Your task to perform on an android device: check google app version Image 0: 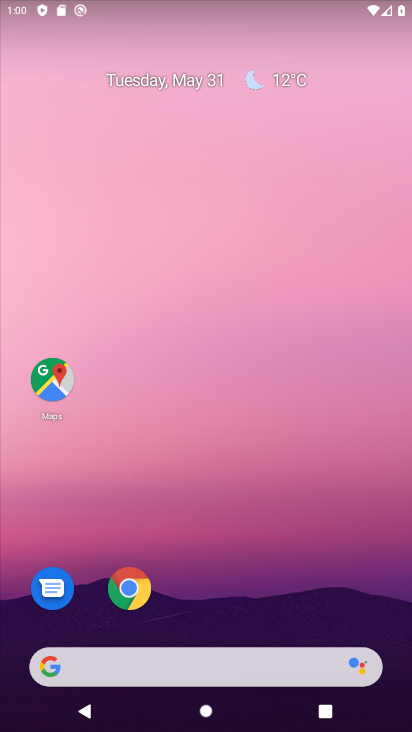
Step 0: drag from (396, 675) to (300, 131)
Your task to perform on an android device: check google app version Image 1: 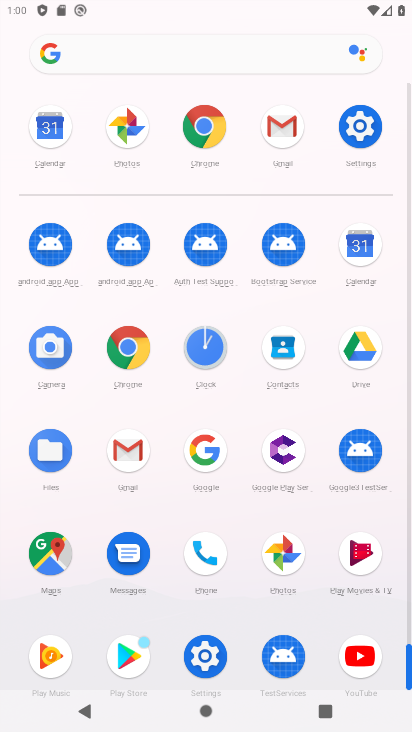
Step 1: click (207, 443)
Your task to perform on an android device: check google app version Image 2: 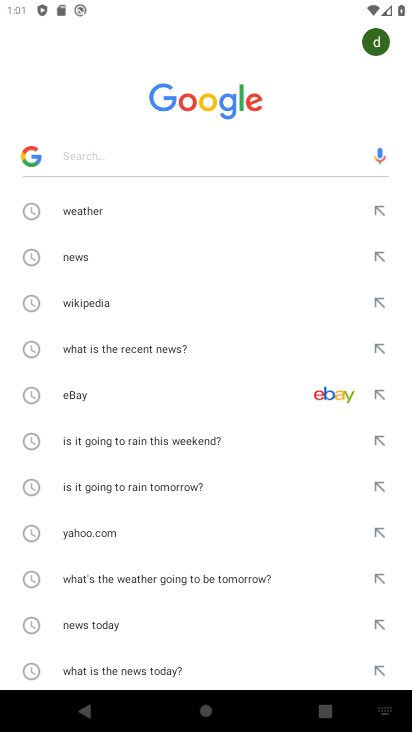
Step 2: press back button
Your task to perform on an android device: check google app version Image 3: 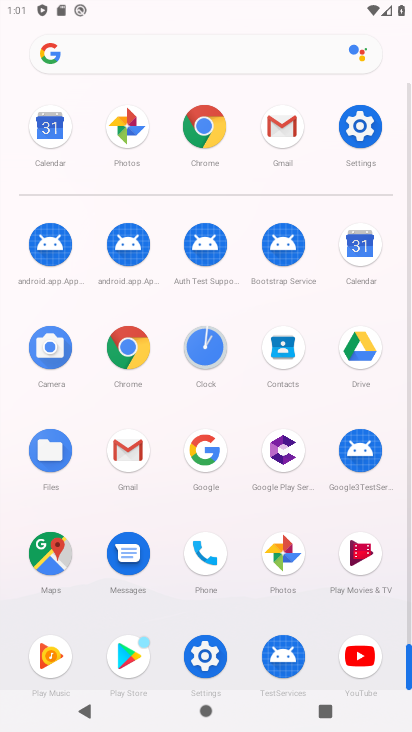
Step 3: click (211, 443)
Your task to perform on an android device: check google app version Image 4: 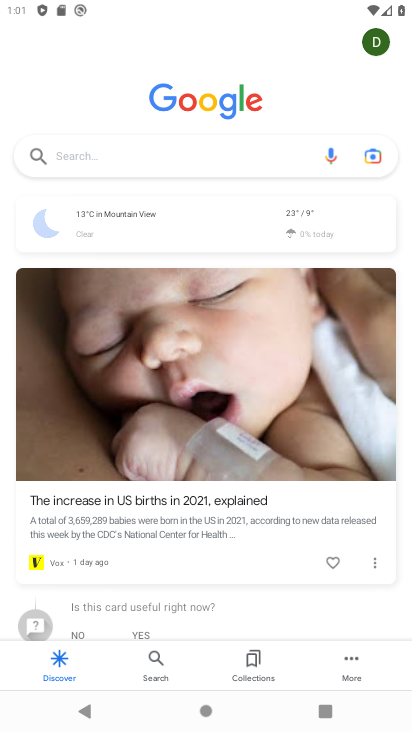
Step 4: click (349, 667)
Your task to perform on an android device: check google app version Image 5: 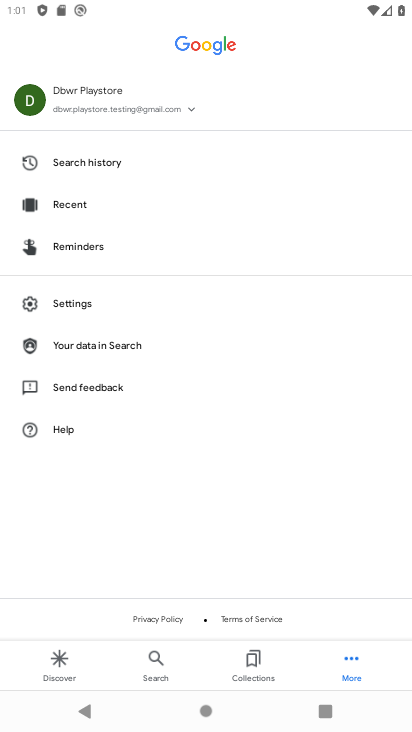
Step 5: click (58, 302)
Your task to perform on an android device: check google app version Image 6: 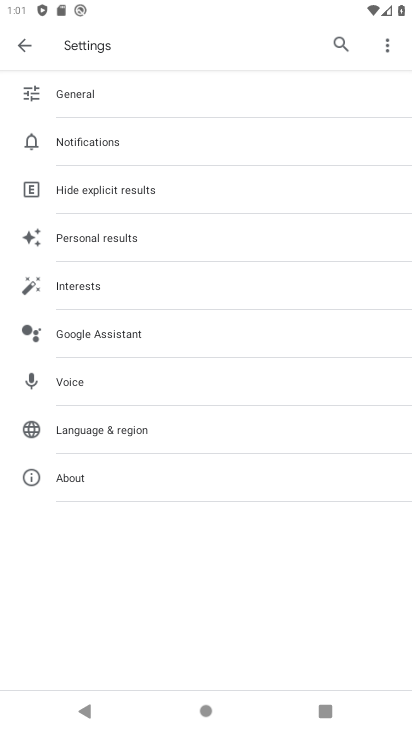
Step 6: click (72, 481)
Your task to perform on an android device: check google app version Image 7: 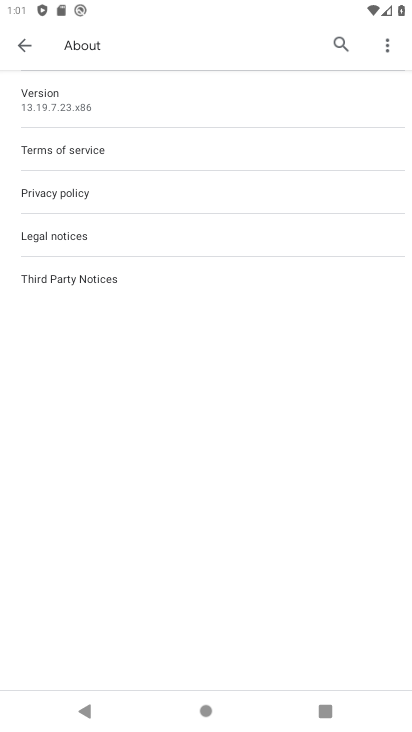
Step 7: click (70, 99)
Your task to perform on an android device: check google app version Image 8: 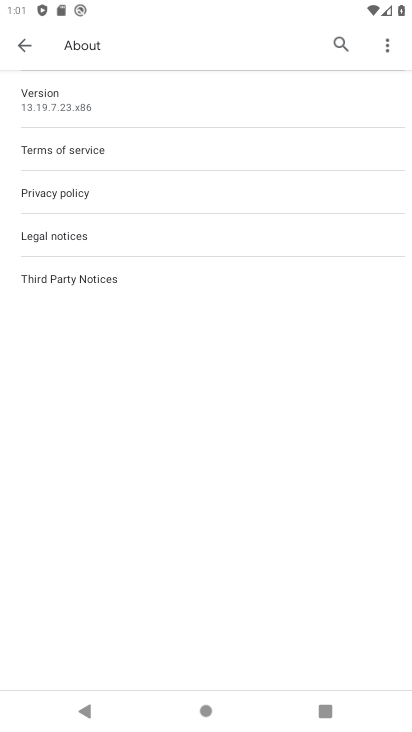
Step 8: task complete